Your task to perform on an android device: turn on javascript in the chrome app Image 0: 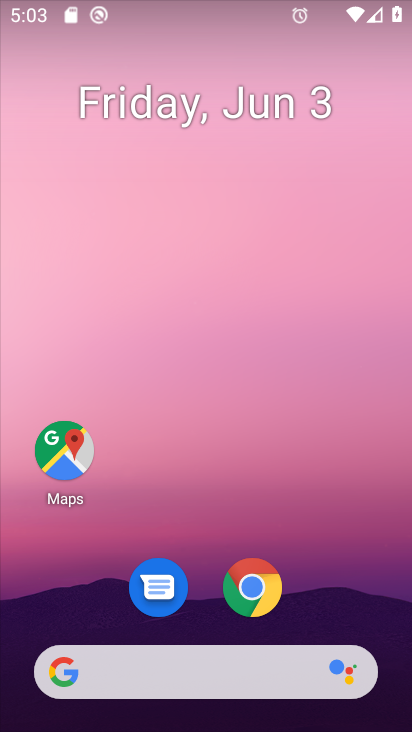
Step 0: click (267, 585)
Your task to perform on an android device: turn on javascript in the chrome app Image 1: 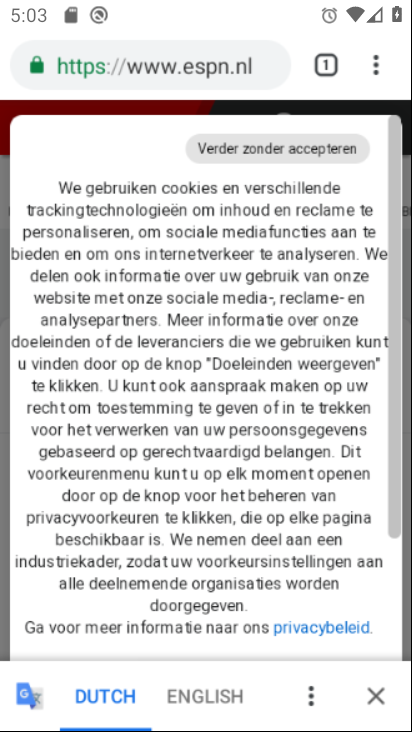
Step 1: click (381, 64)
Your task to perform on an android device: turn on javascript in the chrome app Image 2: 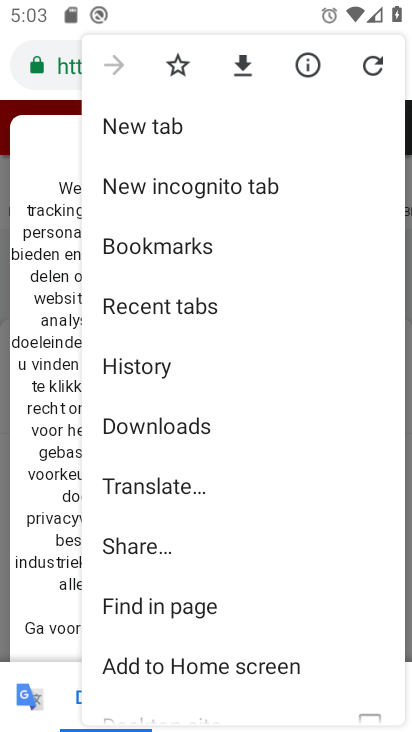
Step 2: drag from (151, 678) to (156, 164)
Your task to perform on an android device: turn on javascript in the chrome app Image 3: 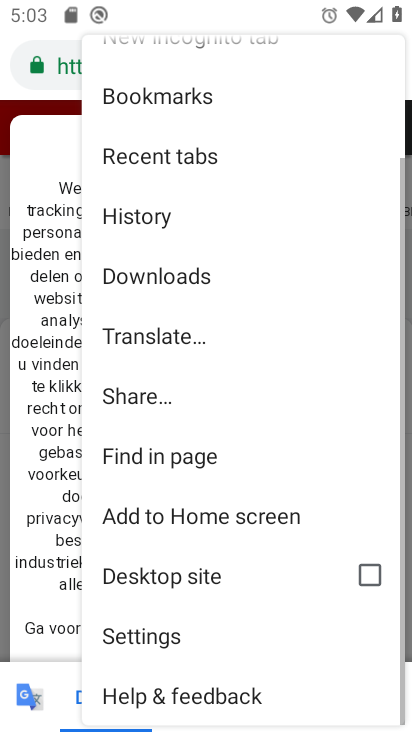
Step 3: click (127, 634)
Your task to perform on an android device: turn on javascript in the chrome app Image 4: 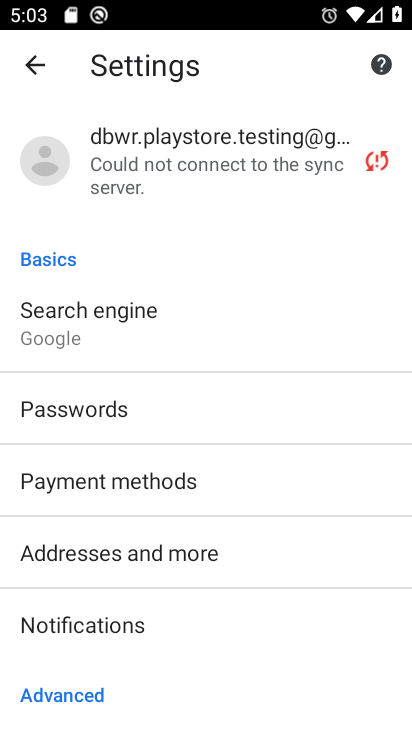
Step 4: drag from (221, 657) to (153, 181)
Your task to perform on an android device: turn on javascript in the chrome app Image 5: 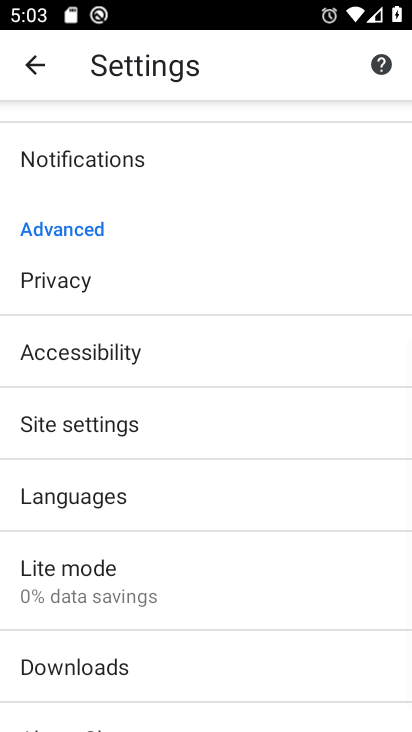
Step 5: click (108, 429)
Your task to perform on an android device: turn on javascript in the chrome app Image 6: 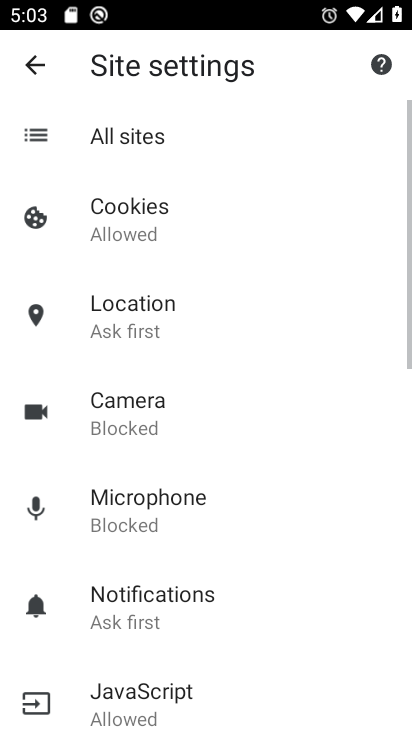
Step 6: click (185, 701)
Your task to perform on an android device: turn on javascript in the chrome app Image 7: 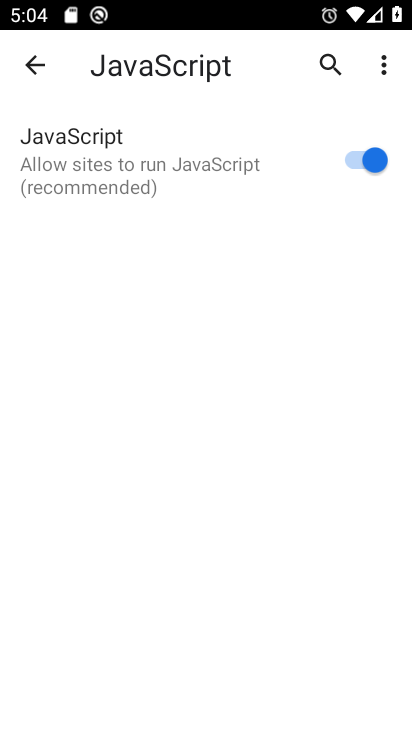
Step 7: task complete